Your task to perform on an android device: open app "Booking.com: Hotels and more" Image 0: 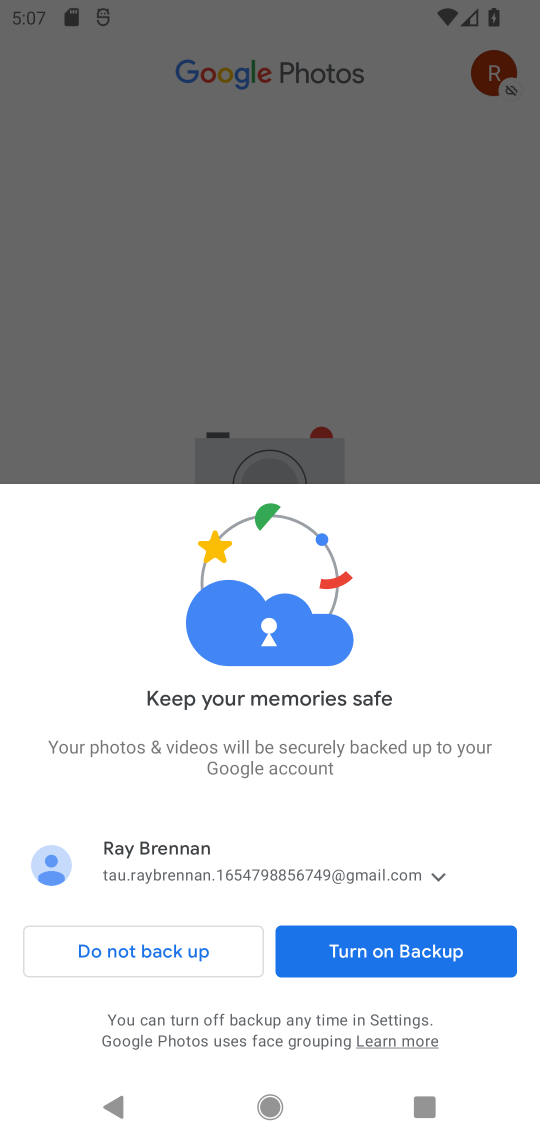
Step 0: press back button
Your task to perform on an android device: open app "Booking.com: Hotels and more" Image 1: 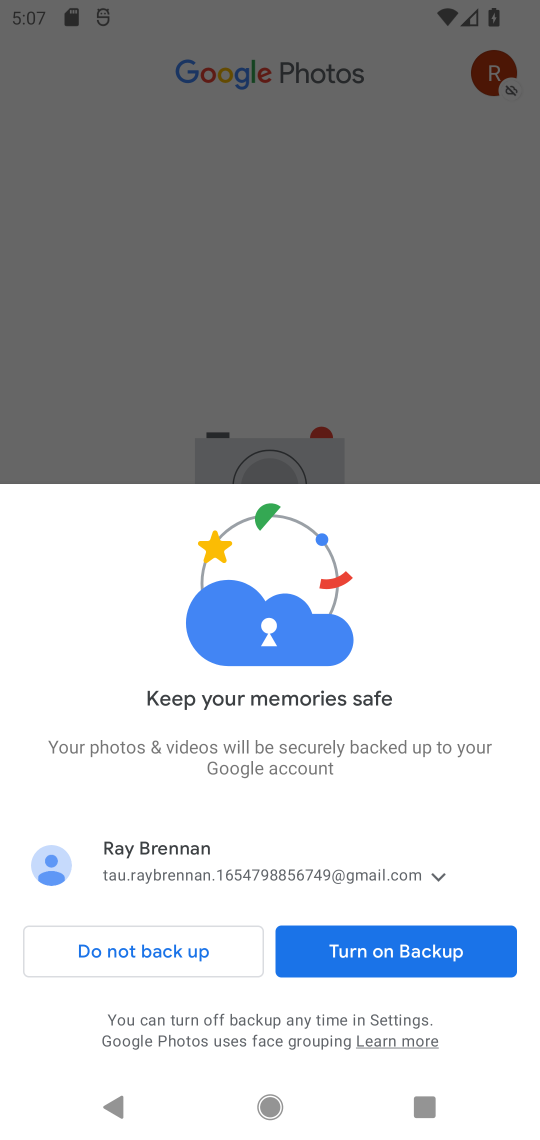
Step 1: press home button
Your task to perform on an android device: open app "Booking.com: Hotels and more" Image 2: 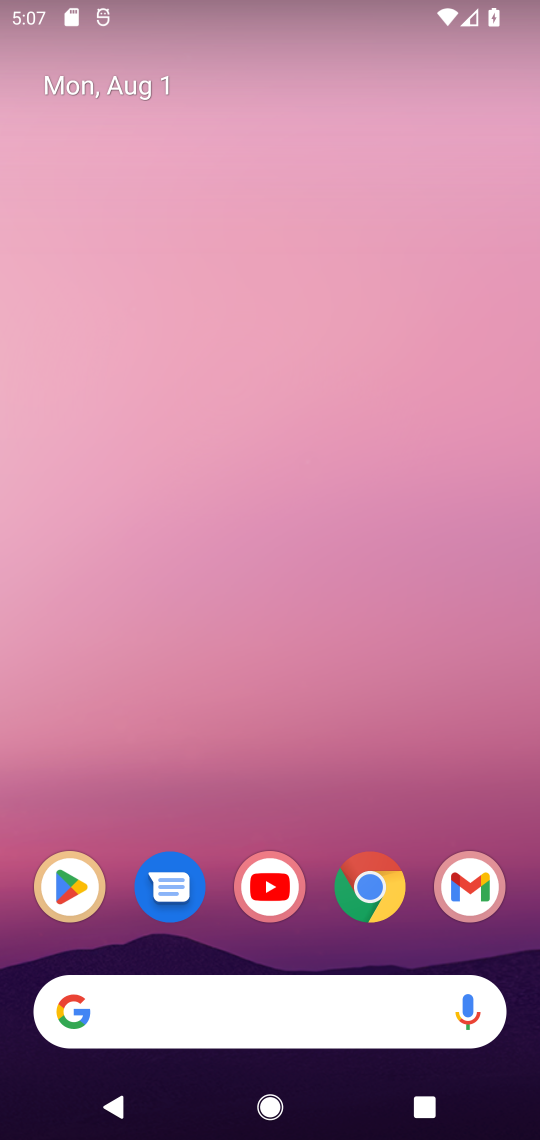
Step 2: click (97, 887)
Your task to perform on an android device: open app "Booking.com: Hotels and more" Image 3: 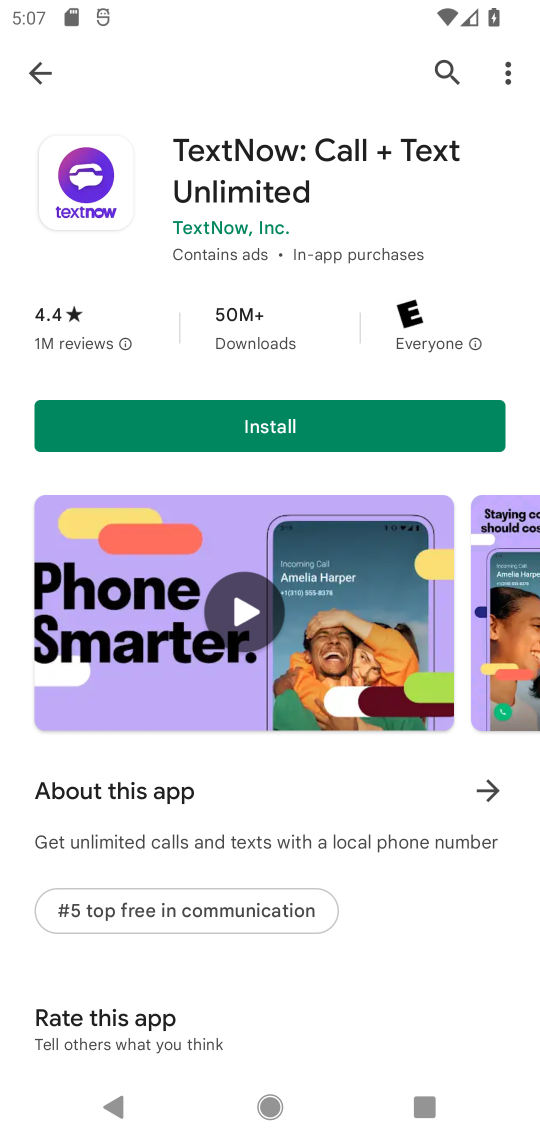
Step 3: click (28, 63)
Your task to perform on an android device: open app "Booking.com: Hotels and more" Image 4: 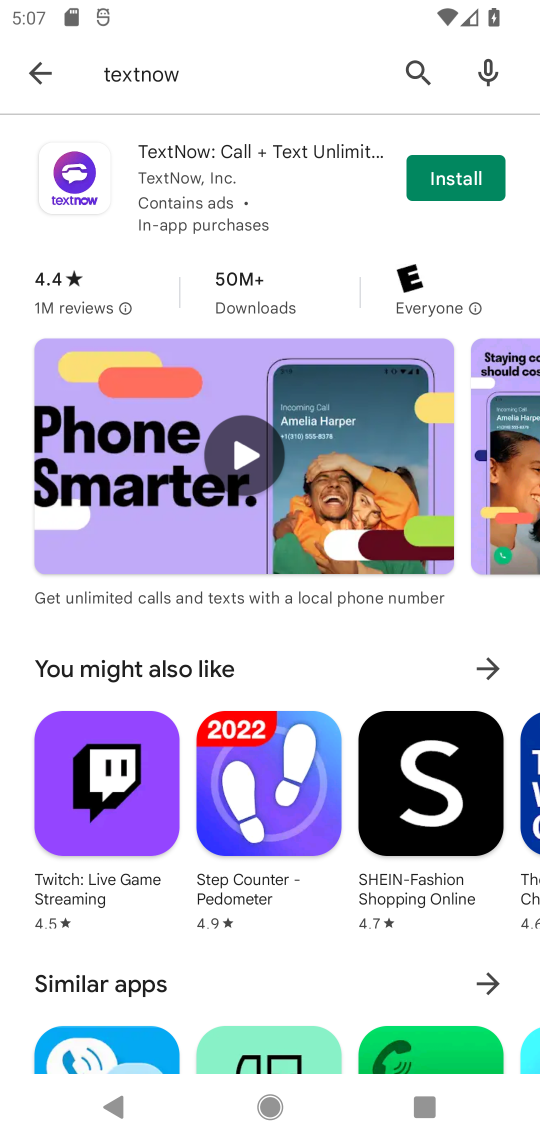
Step 4: click (35, 66)
Your task to perform on an android device: open app "Booking.com: Hotels and more" Image 5: 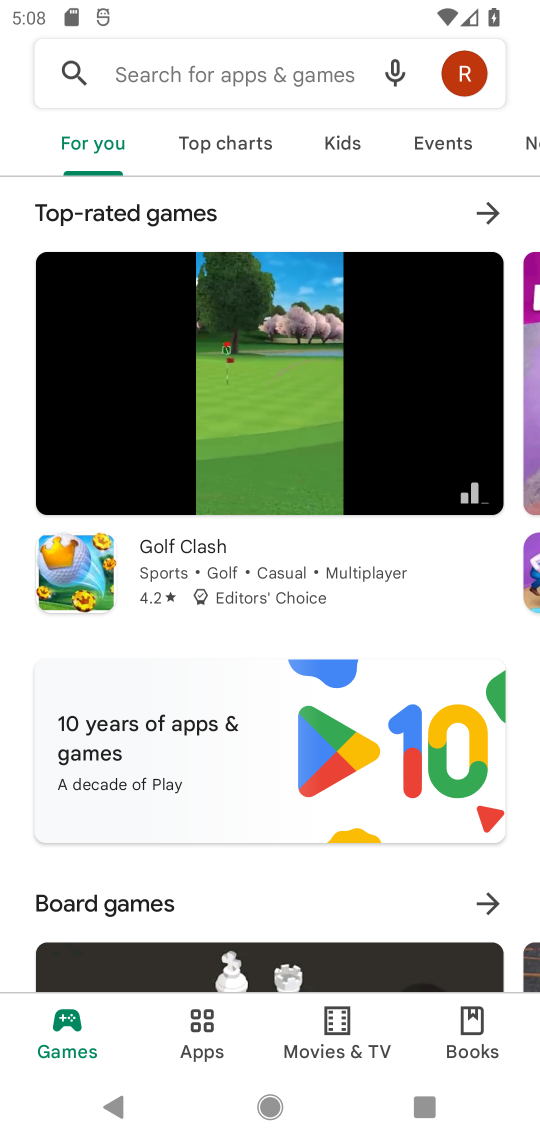
Step 5: click (137, 77)
Your task to perform on an android device: open app "Booking.com: Hotels and more" Image 6: 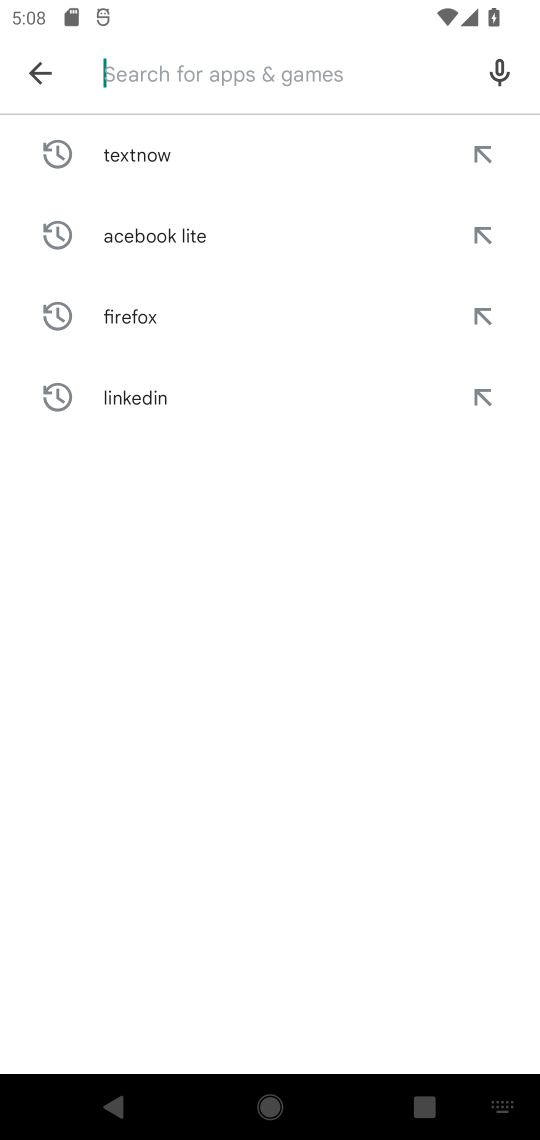
Step 6: type "Booking"
Your task to perform on an android device: open app "Booking.com: Hotels and more" Image 7: 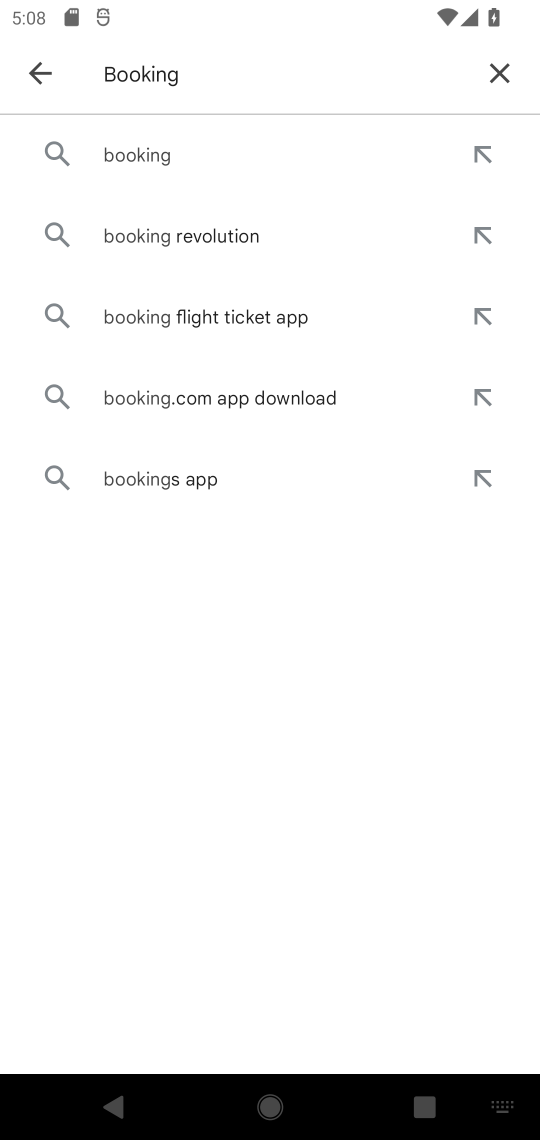
Step 7: click (118, 159)
Your task to perform on an android device: open app "Booking.com: Hotels and more" Image 8: 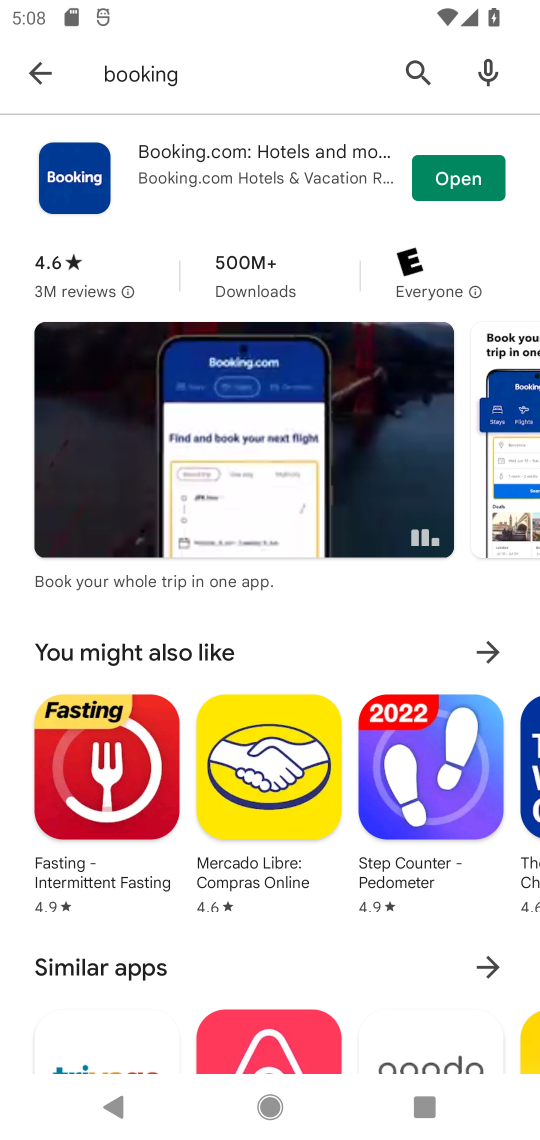
Step 8: click (441, 189)
Your task to perform on an android device: open app "Booking.com: Hotels and more" Image 9: 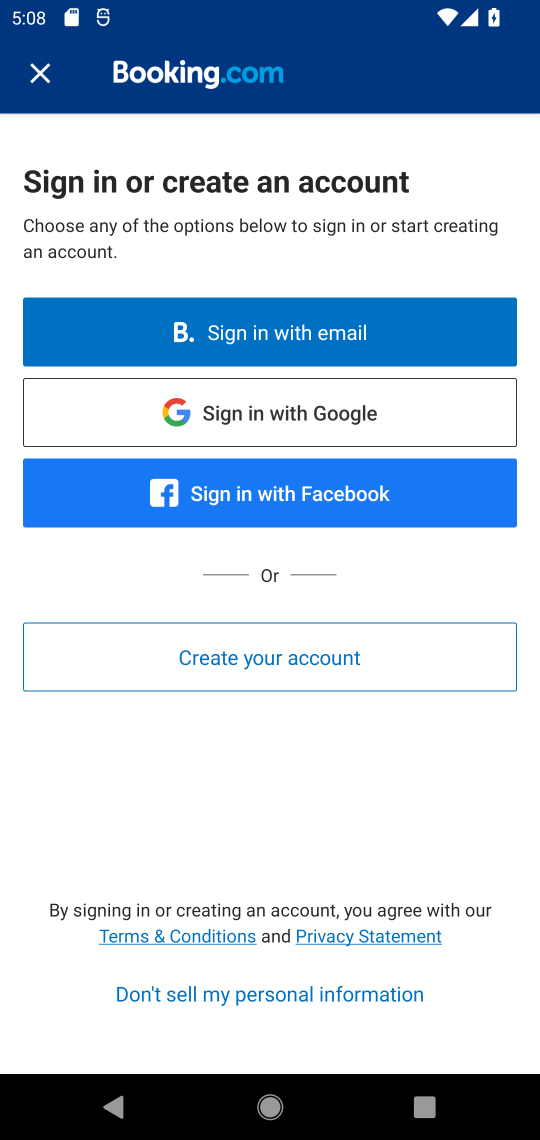
Step 9: task complete